Your task to perform on an android device: change text size in settings app Image 0: 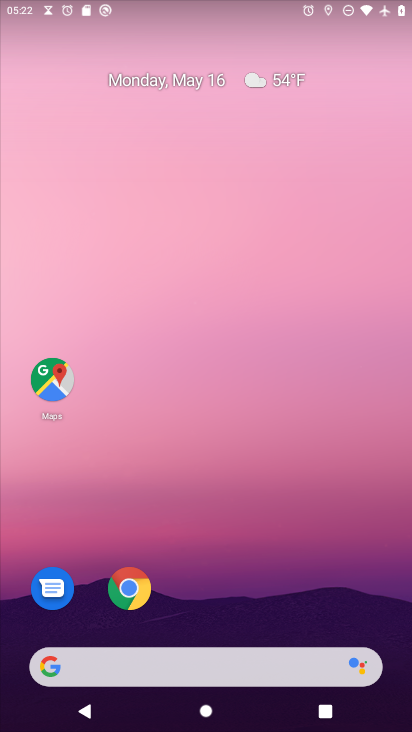
Step 0: drag from (152, 481) to (119, 49)
Your task to perform on an android device: change text size in settings app Image 1: 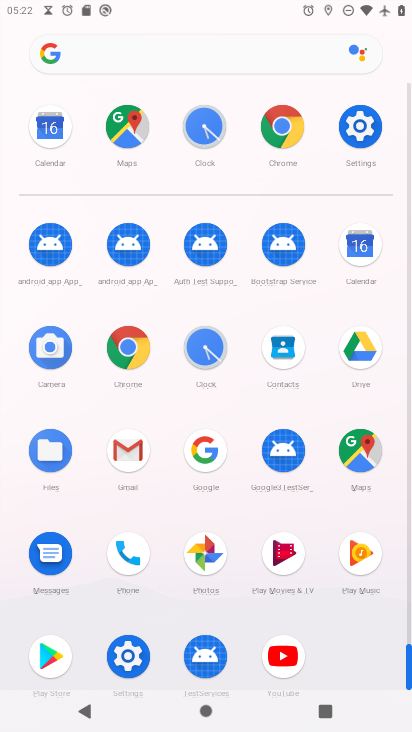
Step 1: drag from (9, 475) to (13, 162)
Your task to perform on an android device: change text size in settings app Image 2: 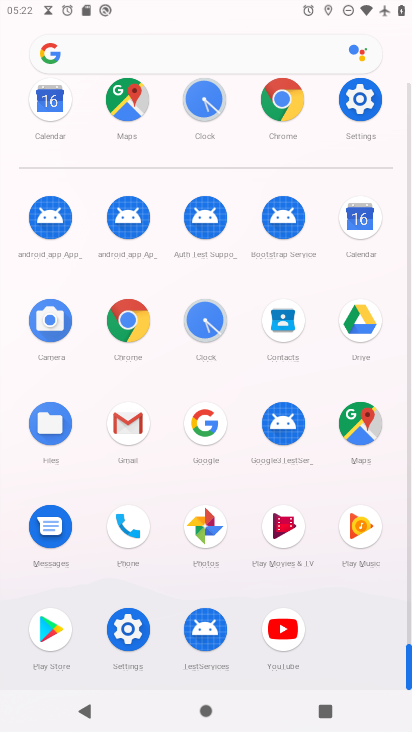
Step 2: click (120, 620)
Your task to perform on an android device: change text size in settings app Image 3: 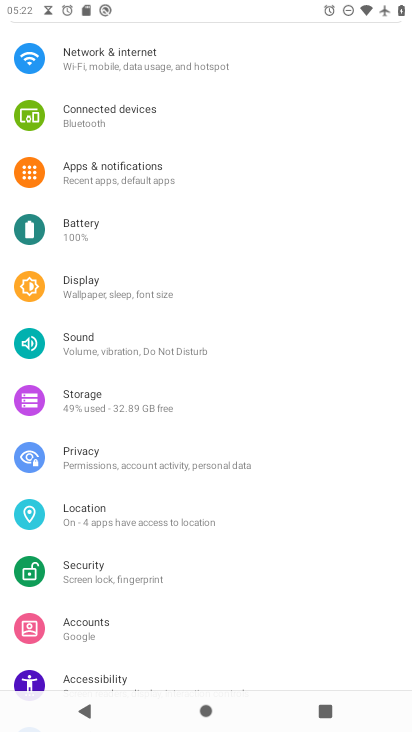
Step 3: click (134, 302)
Your task to perform on an android device: change text size in settings app Image 4: 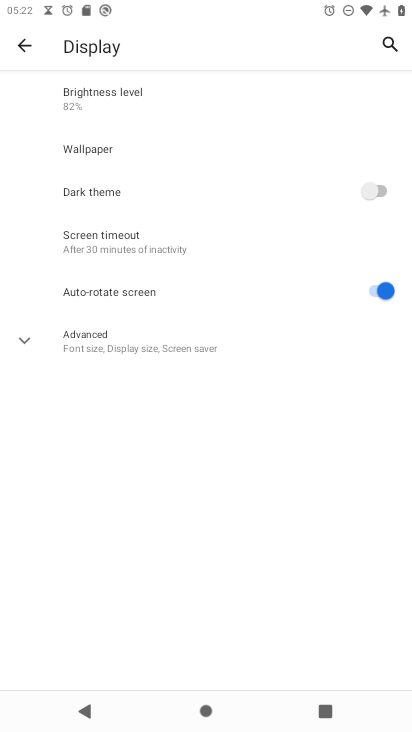
Step 4: click (119, 318)
Your task to perform on an android device: change text size in settings app Image 5: 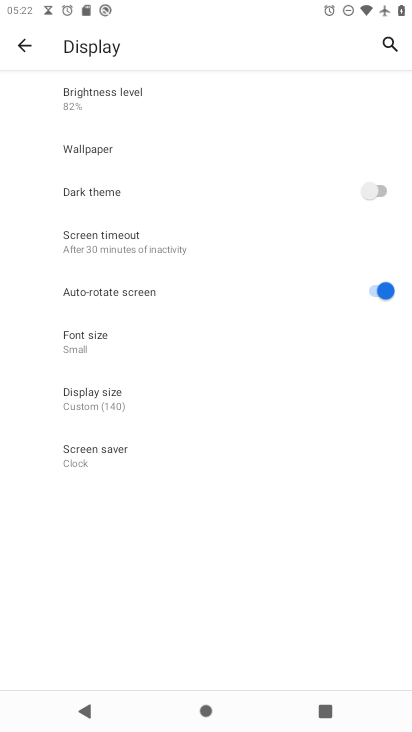
Step 5: click (129, 340)
Your task to perform on an android device: change text size in settings app Image 6: 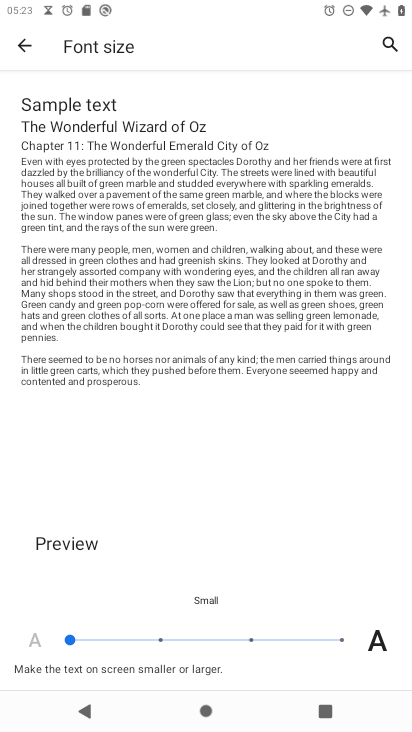
Step 6: click (335, 634)
Your task to perform on an android device: change text size in settings app Image 7: 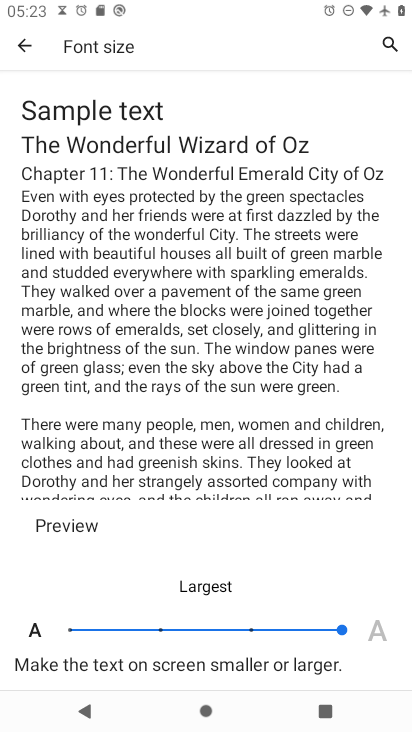
Step 7: task complete